Your task to perform on an android device: open chrome privacy settings Image 0: 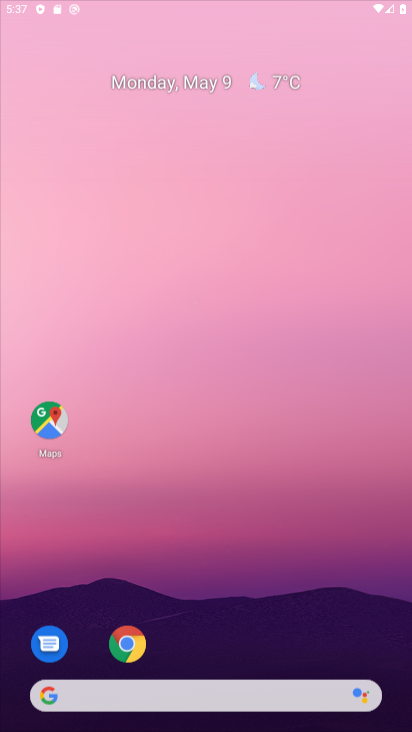
Step 0: click (192, 700)
Your task to perform on an android device: open chrome privacy settings Image 1: 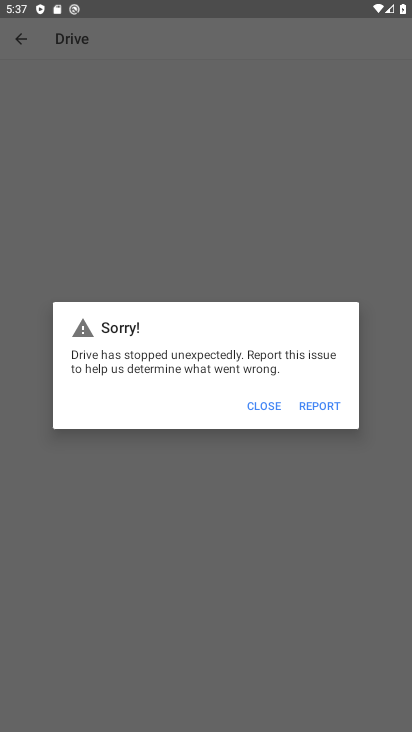
Step 1: drag from (297, 476) to (288, 209)
Your task to perform on an android device: open chrome privacy settings Image 2: 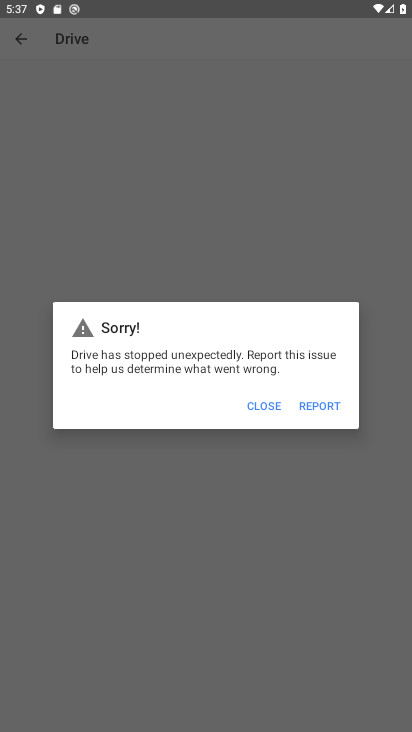
Step 2: press home button
Your task to perform on an android device: open chrome privacy settings Image 3: 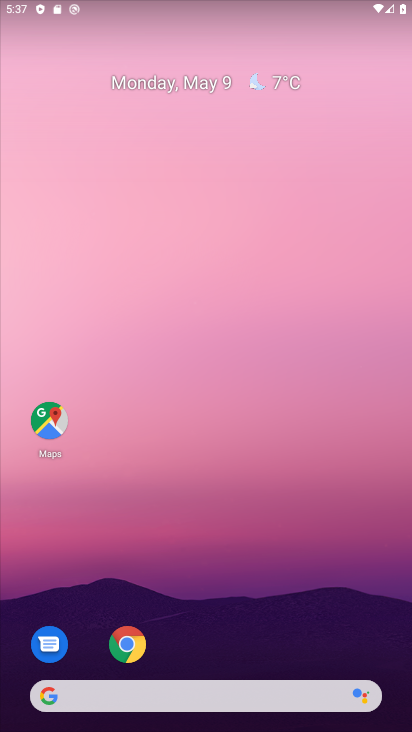
Step 3: click (125, 649)
Your task to perform on an android device: open chrome privacy settings Image 4: 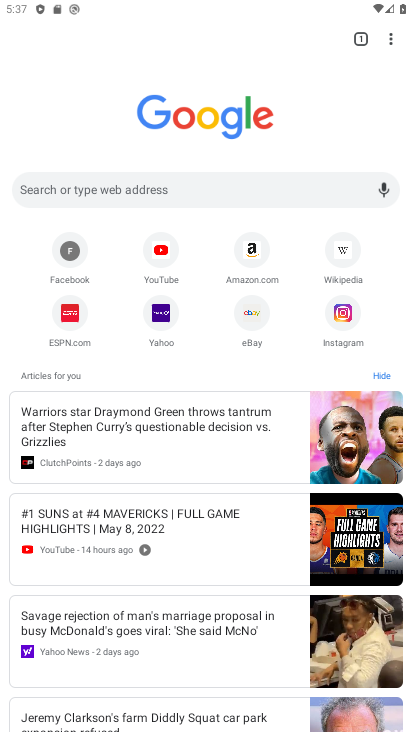
Step 4: click (396, 35)
Your task to perform on an android device: open chrome privacy settings Image 5: 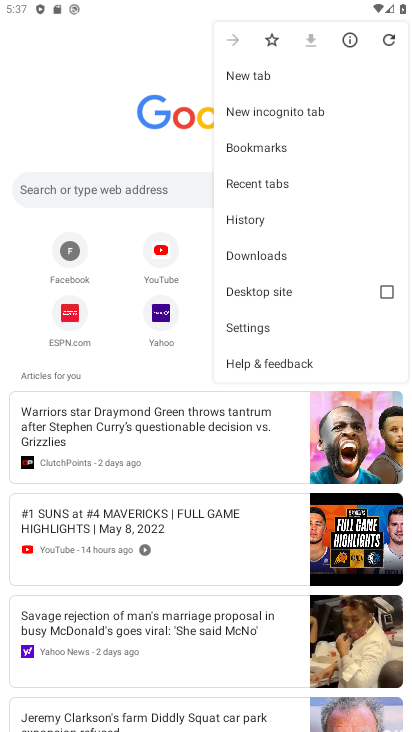
Step 5: click (262, 323)
Your task to perform on an android device: open chrome privacy settings Image 6: 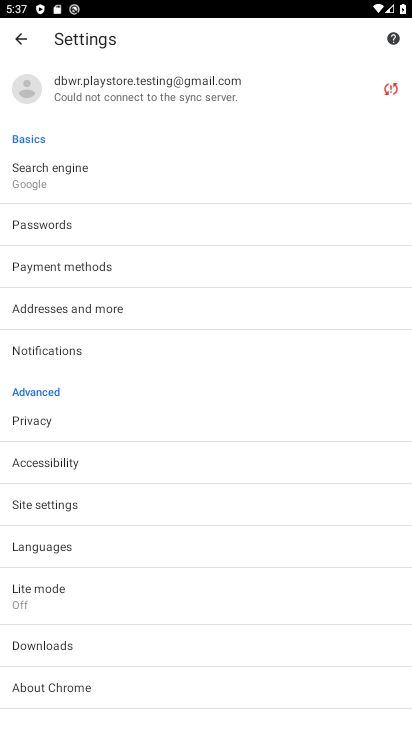
Step 6: click (52, 420)
Your task to perform on an android device: open chrome privacy settings Image 7: 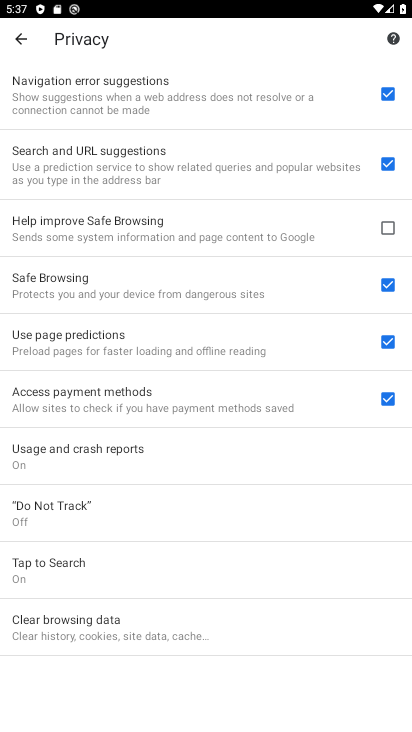
Step 7: task complete